Your task to perform on an android device: open app "Adobe Express: Graphic Design" (install if not already installed) and go to login screen Image 0: 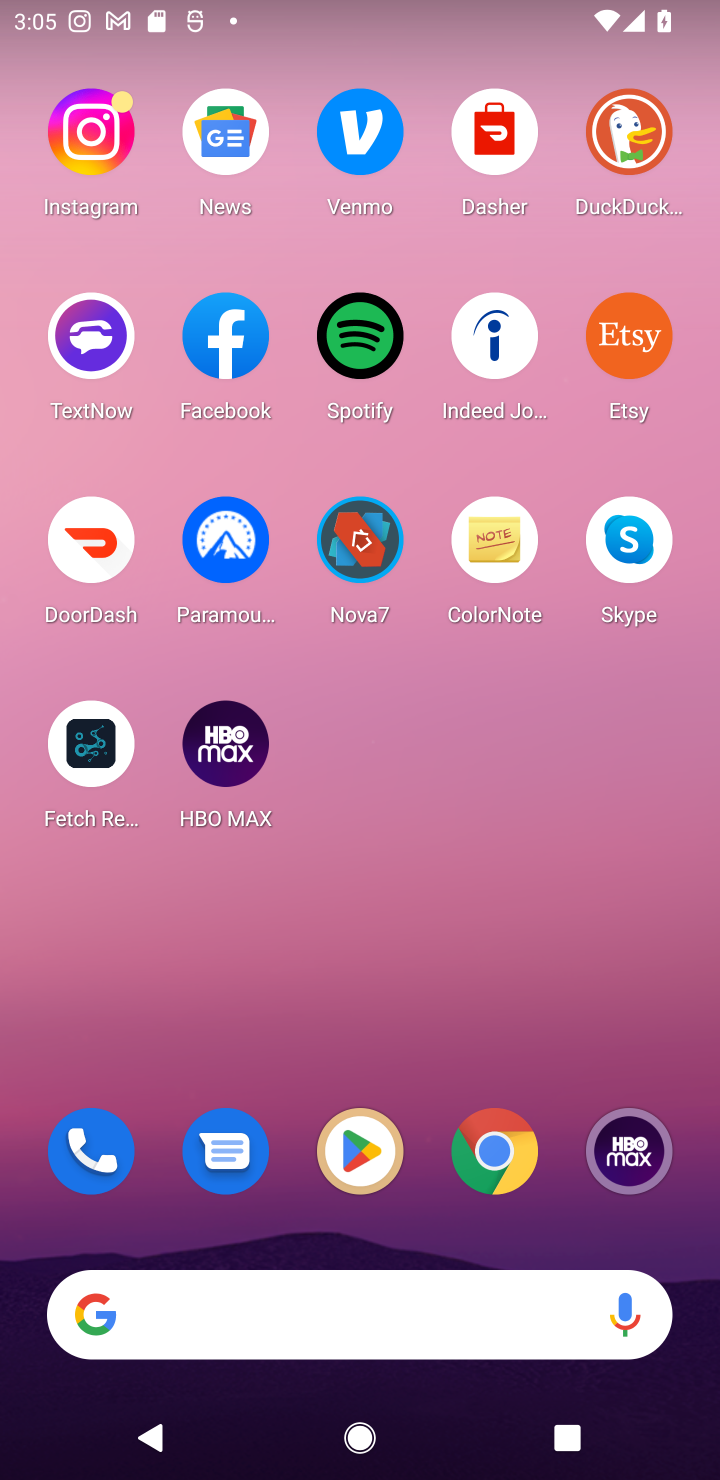
Step 0: press home button
Your task to perform on an android device: open app "Adobe Express: Graphic Design" (install if not already installed) and go to login screen Image 1: 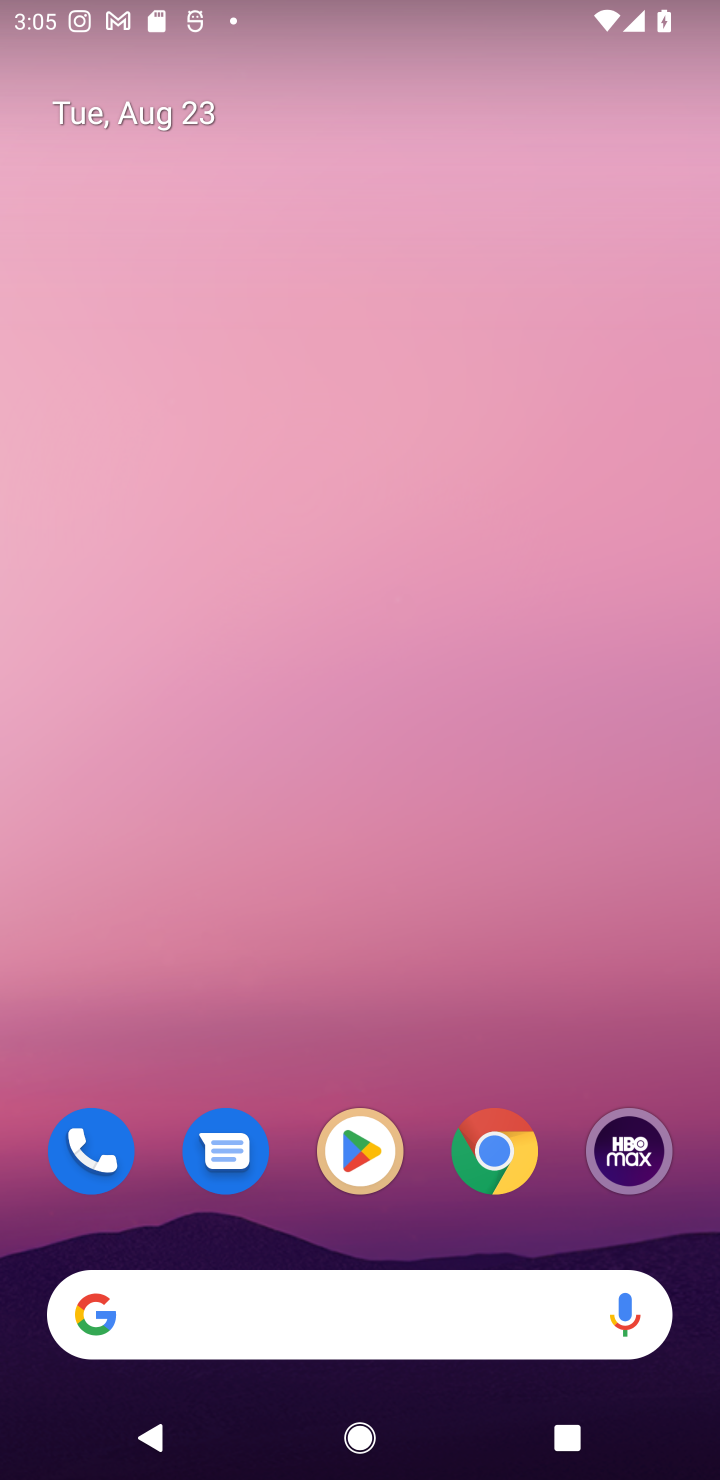
Step 1: click (360, 1156)
Your task to perform on an android device: open app "Adobe Express: Graphic Design" (install if not already installed) and go to login screen Image 2: 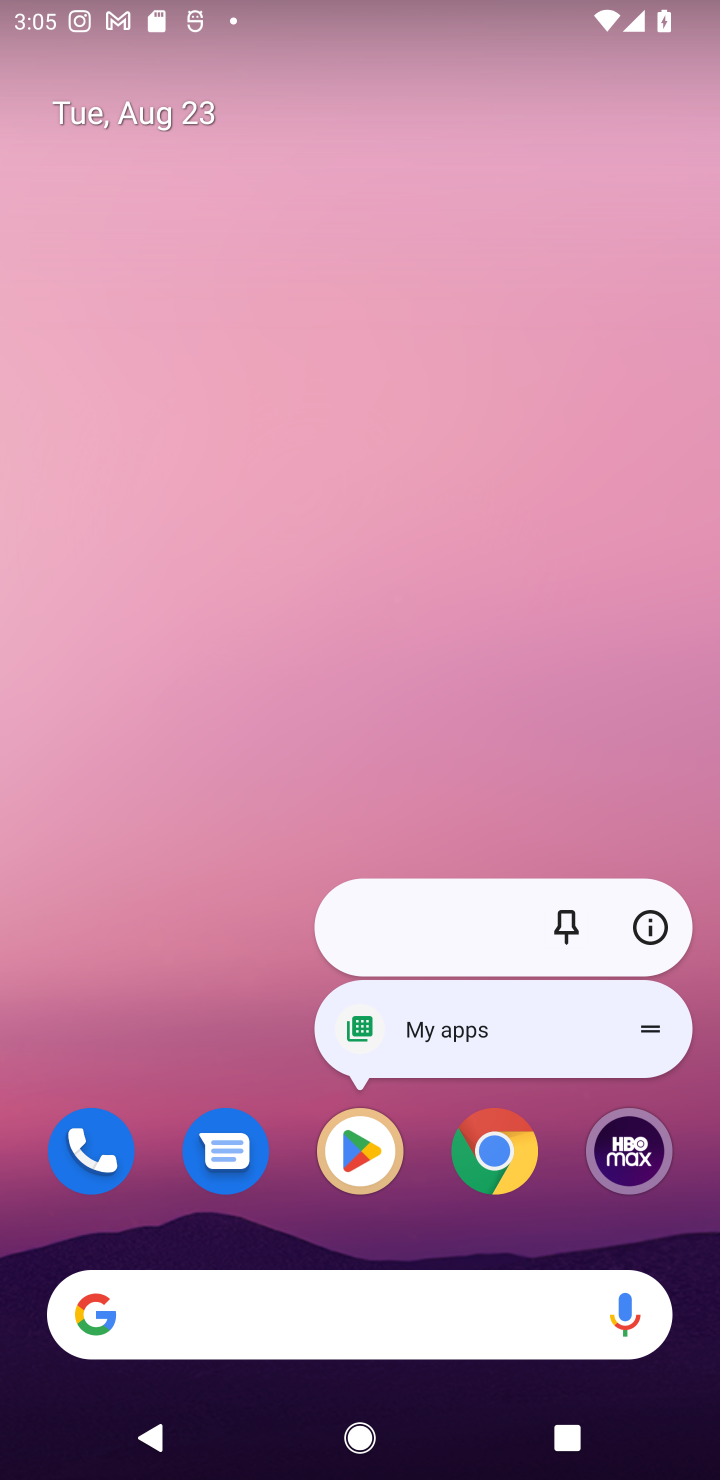
Step 2: click (360, 1156)
Your task to perform on an android device: open app "Adobe Express: Graphic Design" (install if not already installed) and go to login screen Image 3: 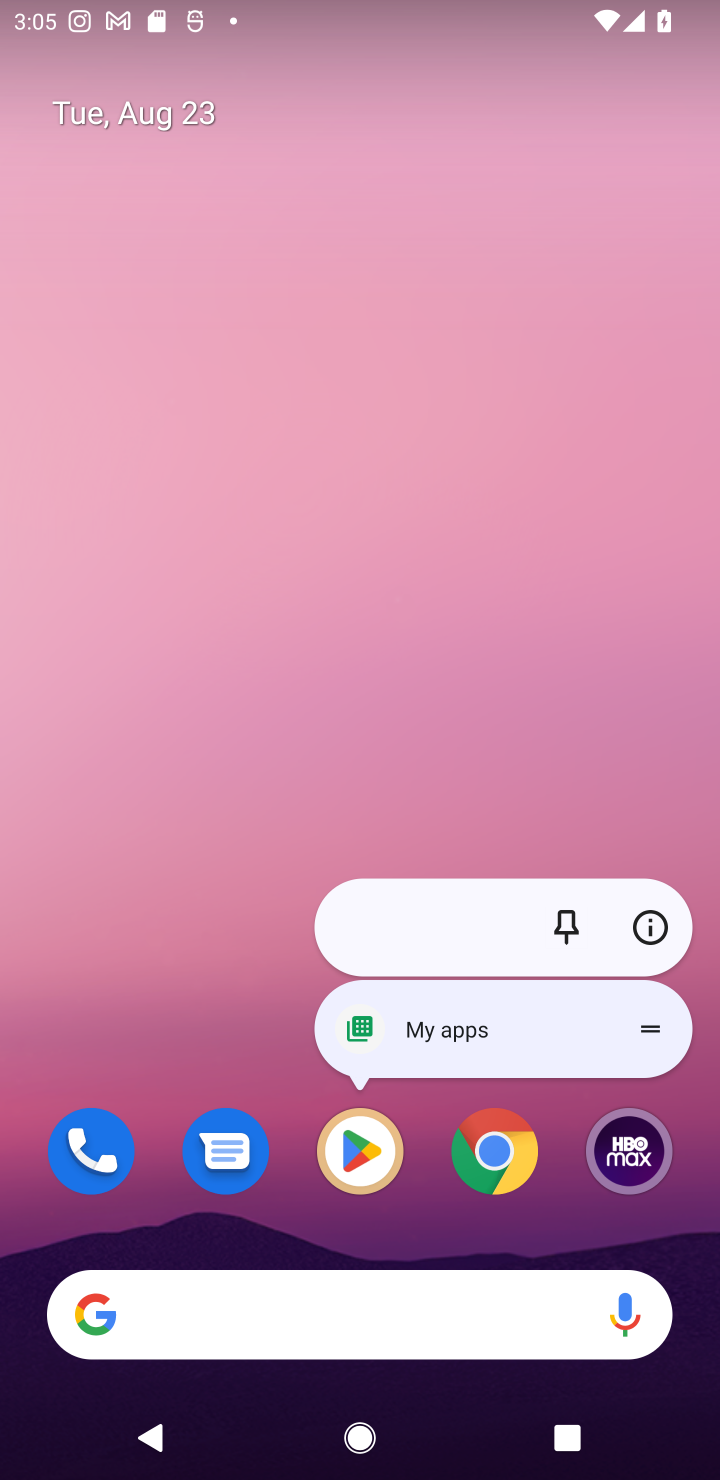
Step 3: click (360, 1156)
Your task to perform on an android device: open app "Adobe Express: Graphic Design" (install if not already installed) and go to login screen Image 4: 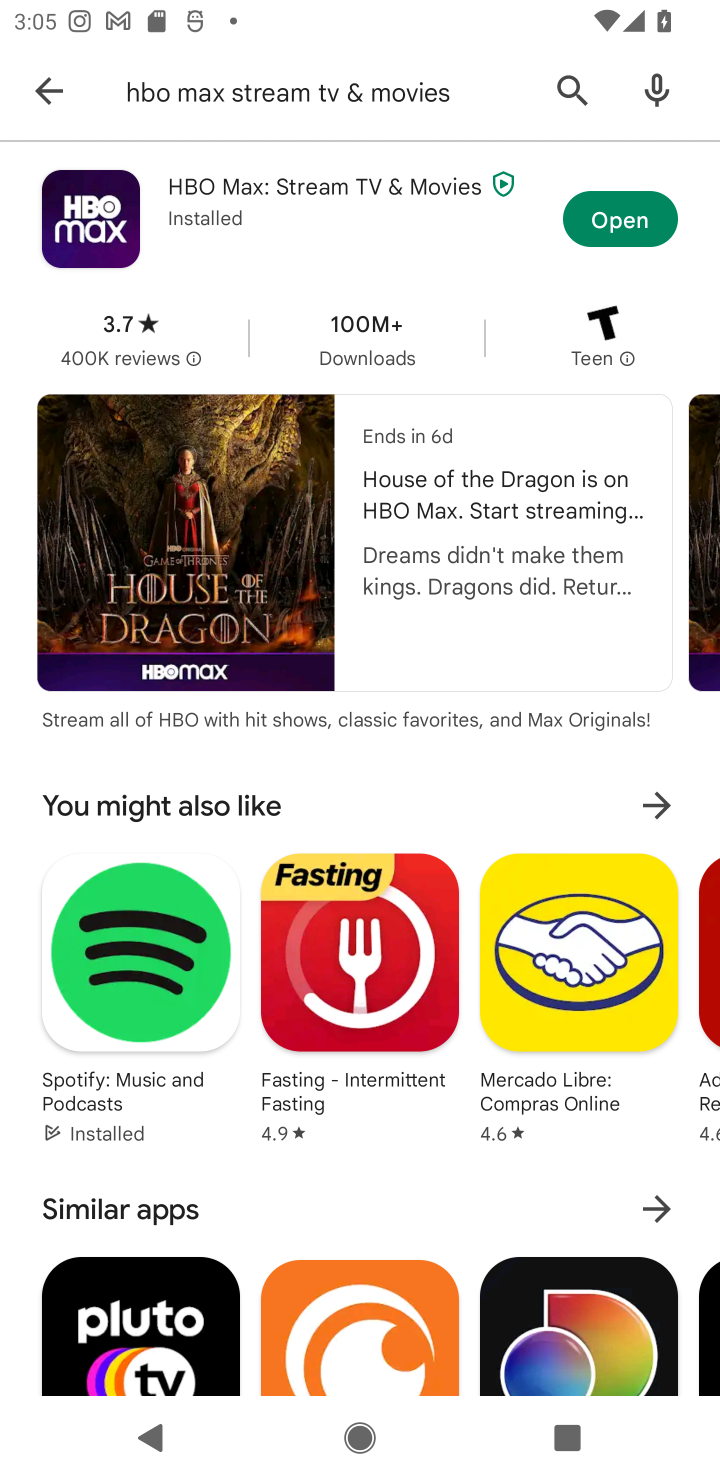
Step 4: click (570, 83)
Your task to perform on an android device: open app "Adobe Express: Graphic Design" (install if not already installed) and go to login screen Image 5: 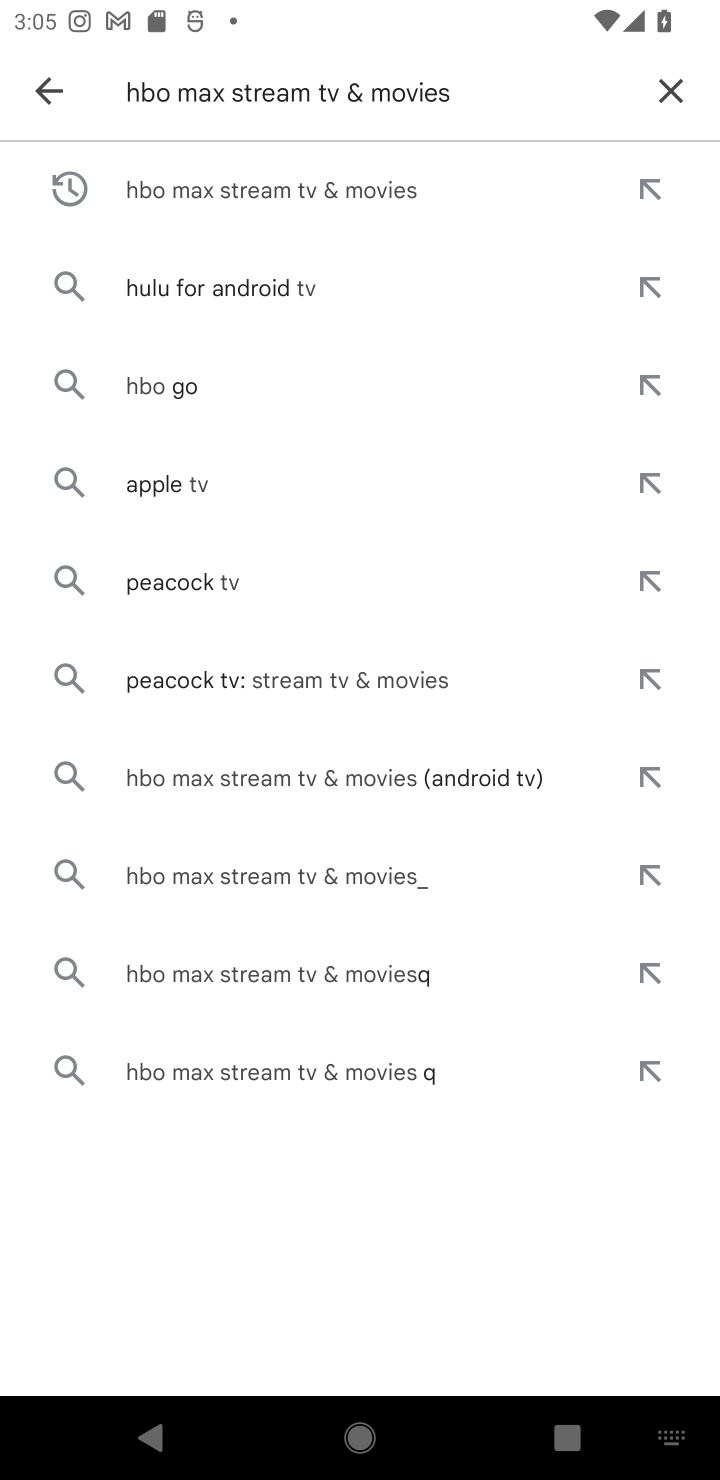
Step 5: click (666, 81)
Your task to perform on an android device: open app "Adobe Express: Graphic Design" (install if not already installed) and go to login screen Image 6: 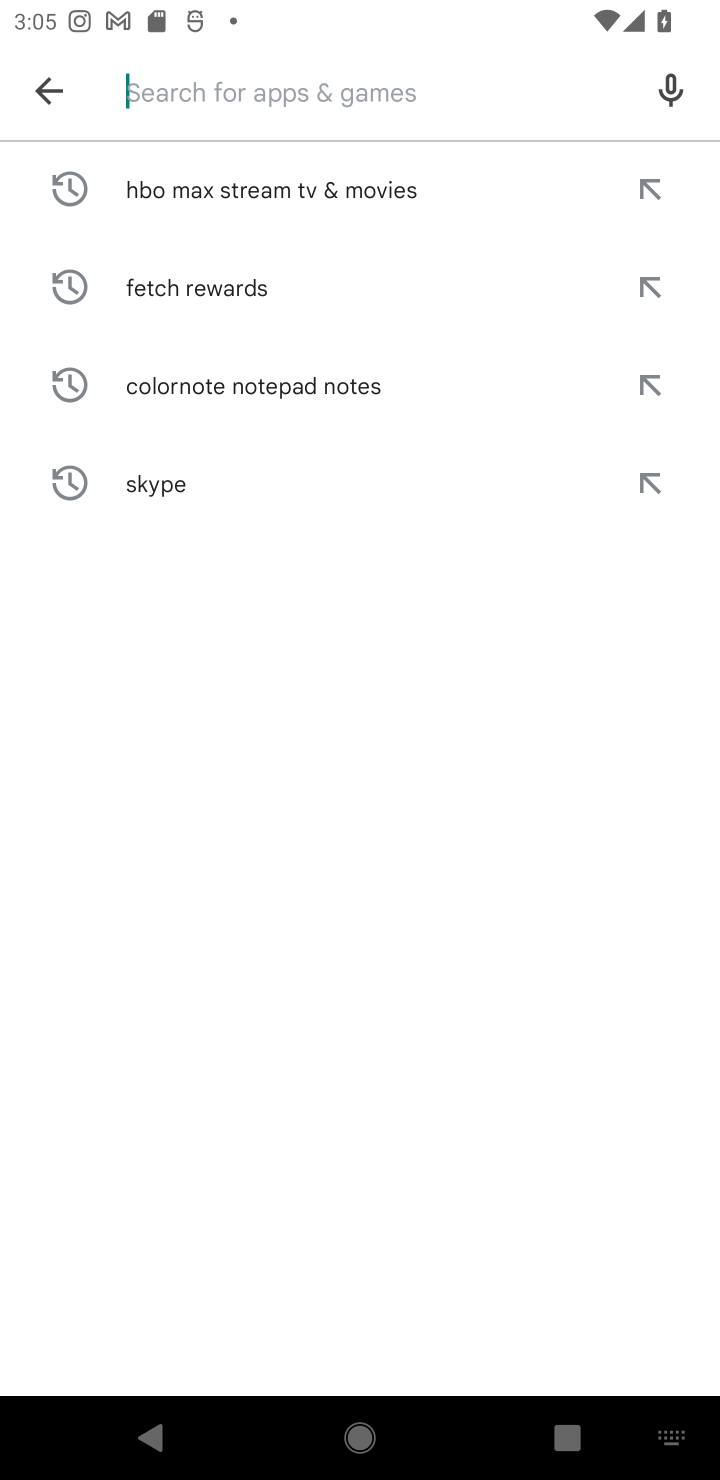
Step 6: type "Adobe Express: Graphic Design"
Your task to perform on an android device: open app "Adobe Express: Graphic Design" (install if not already installed) and go to login screen Image 7: 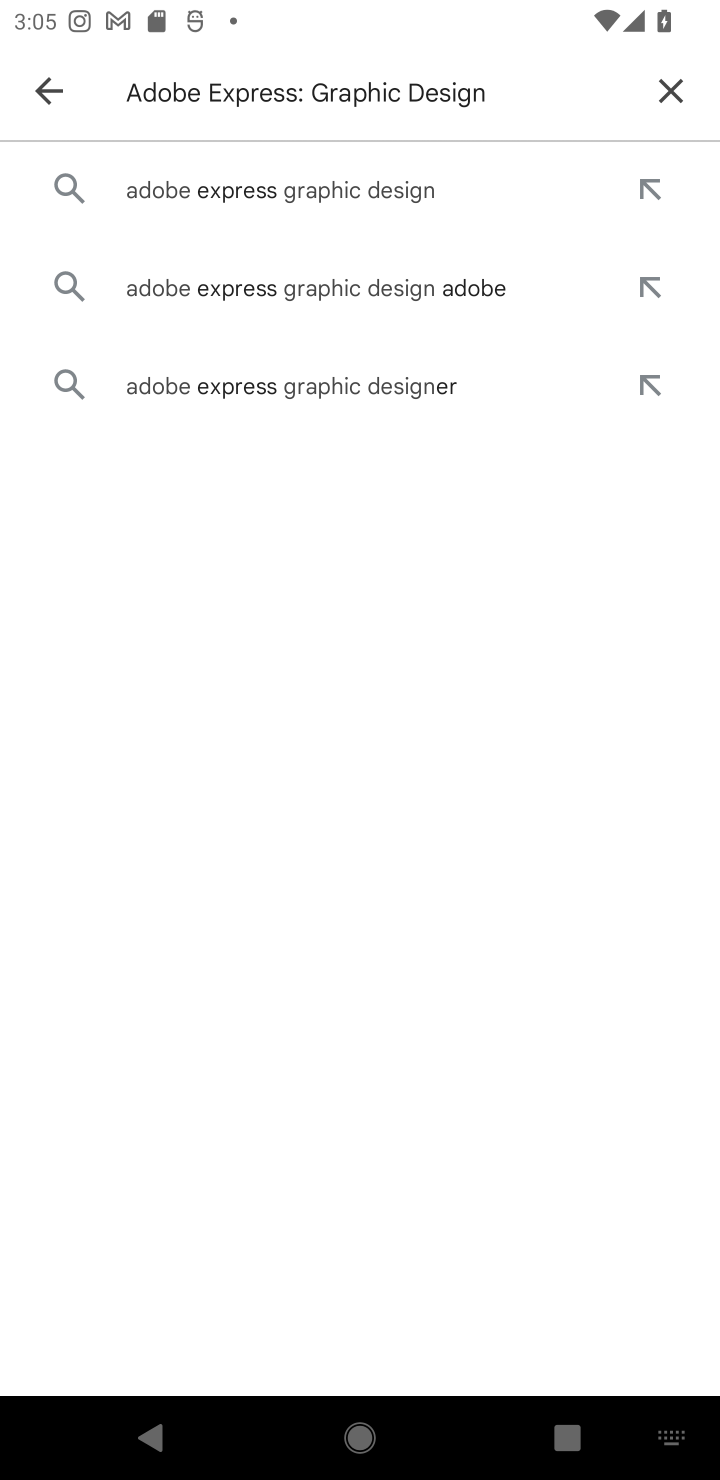
Step 7: click (290, 191)
Your task to perform on an android device: open app "Adobe Express: Graphic Design" (install if not already installed) and go to login screen Image 8: 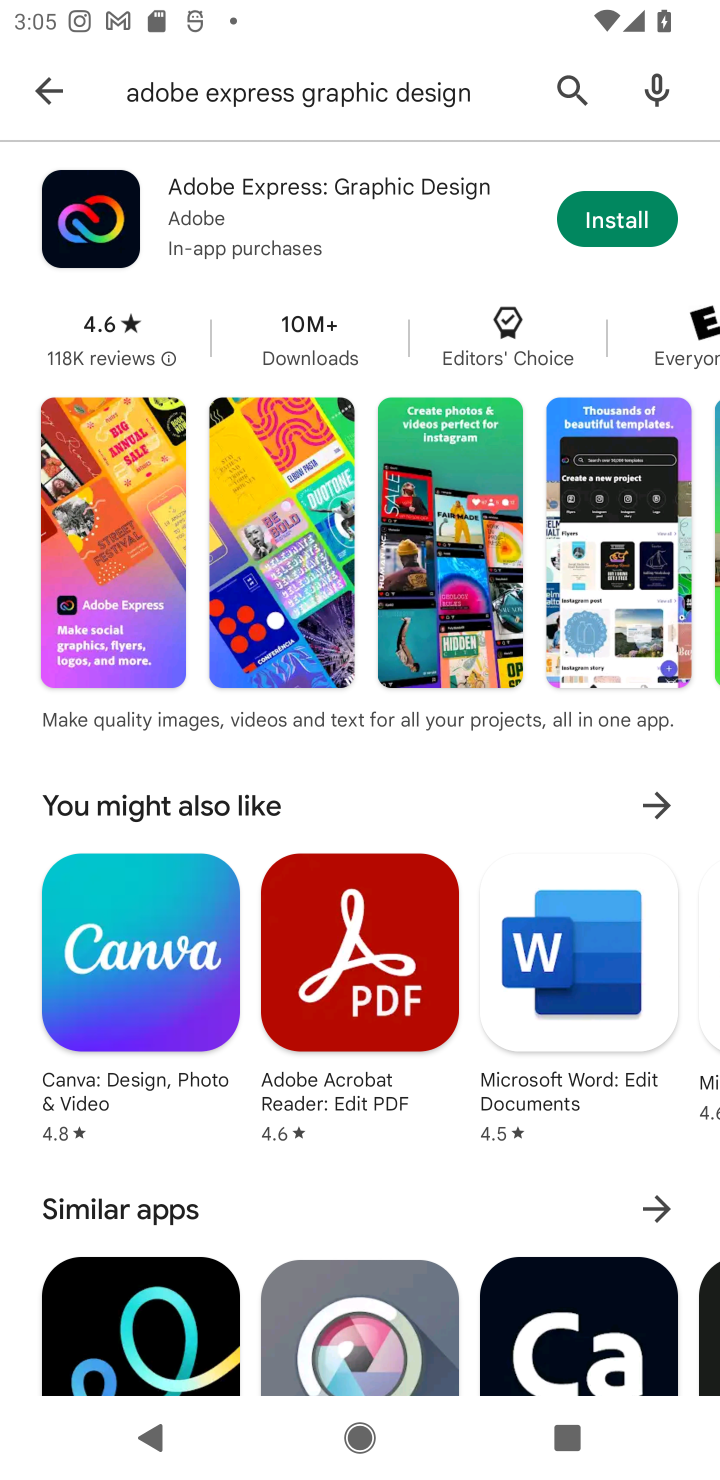
Step 8: click (634, 219)
Your task to perform on an android device: open app "Adobe Express: Graphic Design" (install if not already installed) and go to login screen Image 9: 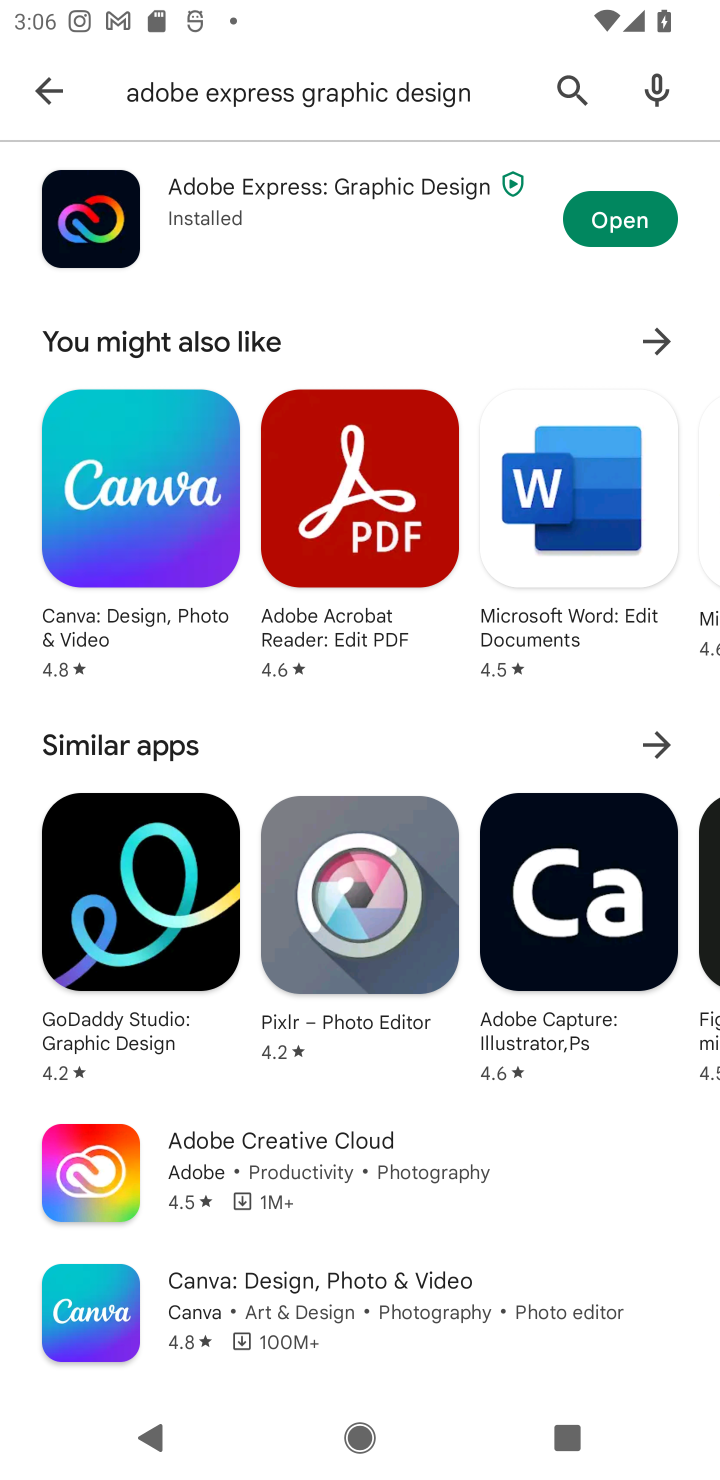
Step 9: click (630, 210)
Your task to perform on an android device: open app "Adobe Express: Graphic Design" (install if not already installed) and go to login screen Image 10: 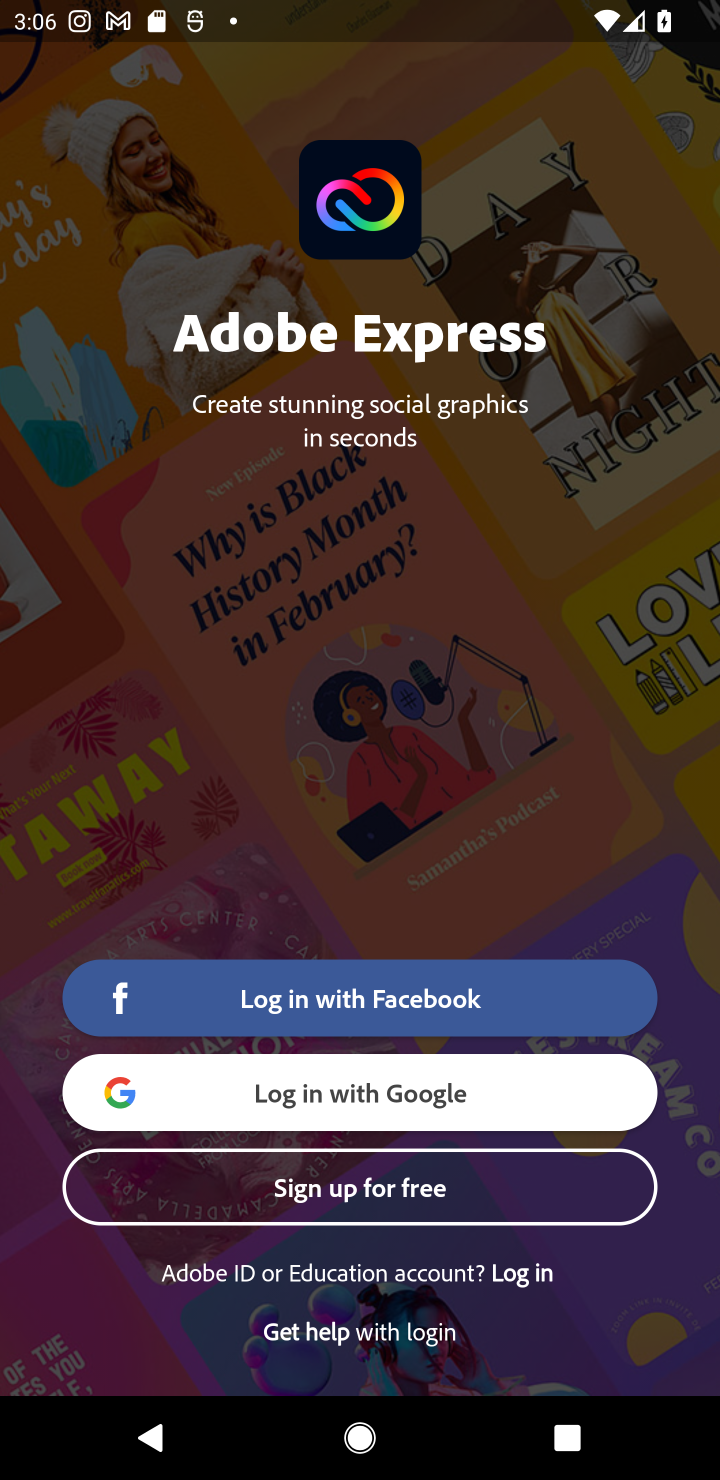
Step 10: task complete